Your task to perform on an android device: Open Yahoo.com Image 0: 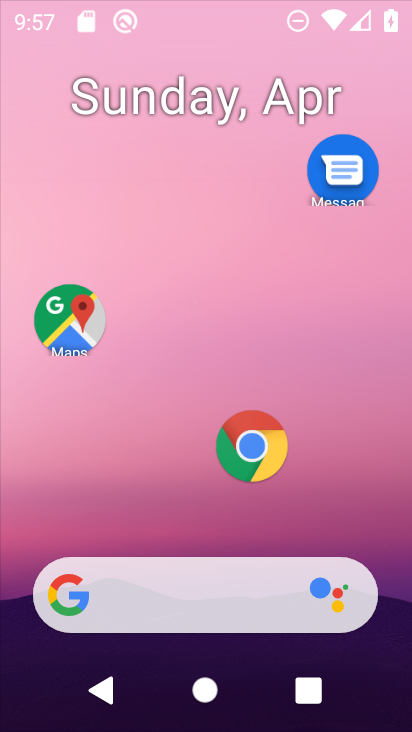
Step 0: click (236, 206)
Your task to perform on an android device: Open Yahoo.com Image 1: 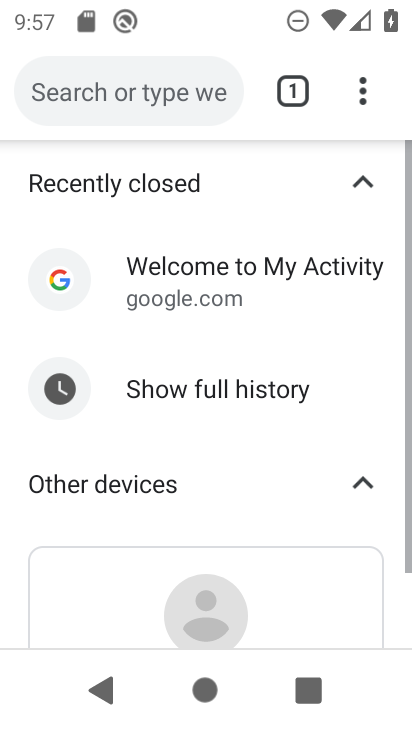
Step 1: drag from (187, 609) to (246, 168)
Your task to perform on an android device: Open Yahoo.com Image 2: 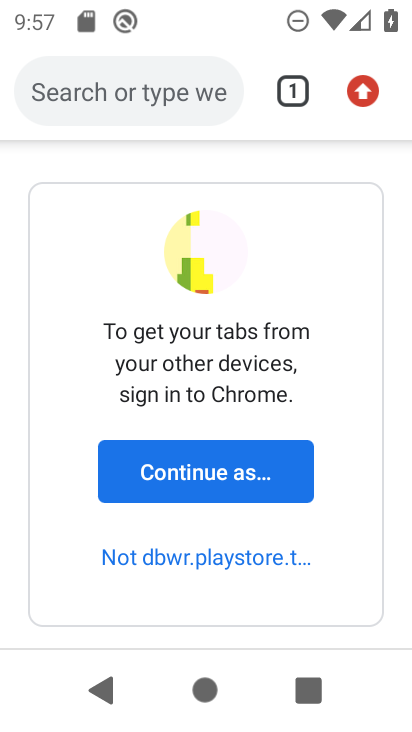
Step 2: drag from (186, 584) to (247, 294)
Your task to perform on an android device: Open Yahoo.com Image 3: 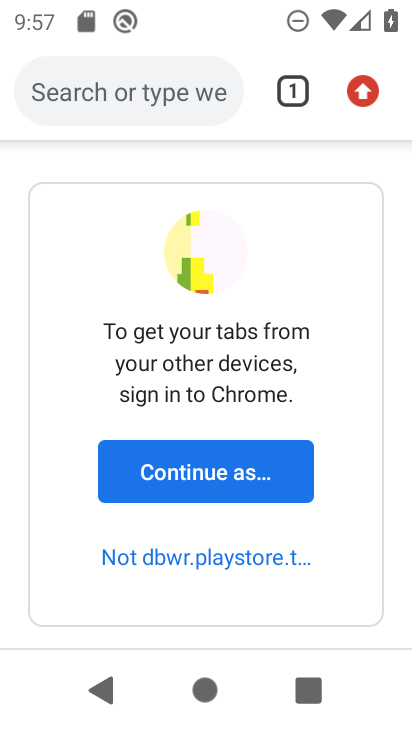
Step 3: click (214, 99)
Your task to perform on an android device: Open Yahoo.com Image 4: 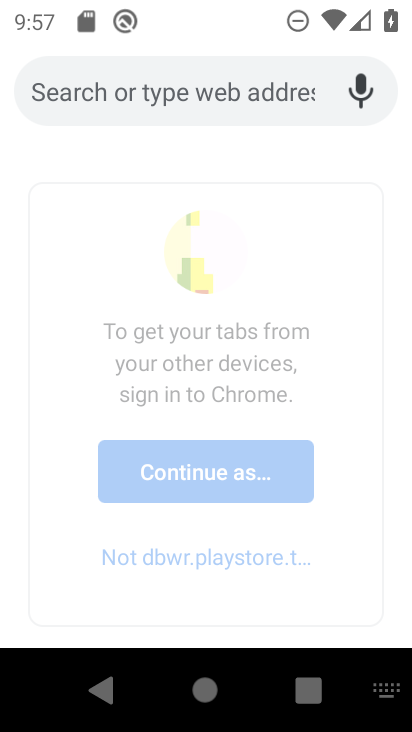
Step 4: type "yahoo.com"
Your task to perform on an android device: Open Yahoo.com Image 5: 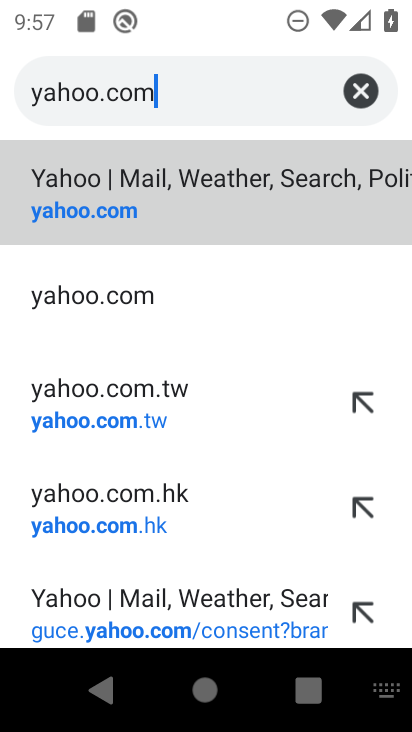
Step 5: click (66, 206)
Your task to perform on an android device: Open Yahoo.com Image 6: 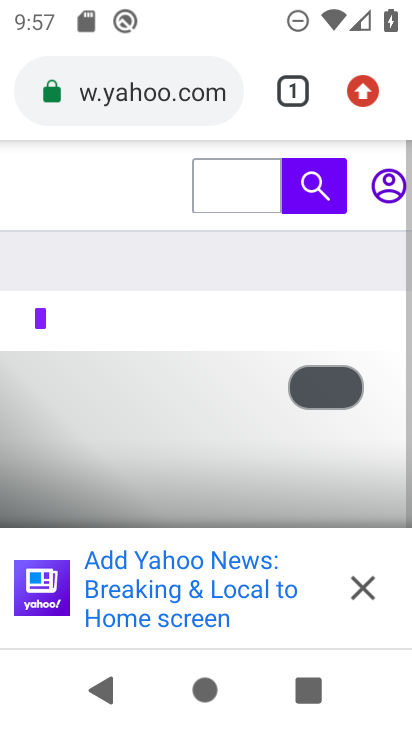
Step 6: task complete